Your task to perform on an android device: toggle sleep mode Image 0: 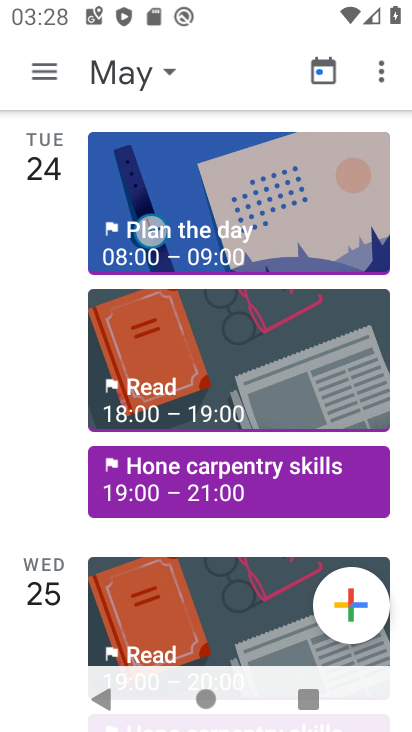
Step 0: drag from (213, 21) to (287, 684)
Your task to perform on an android device: toggle sleep mode Image 1: 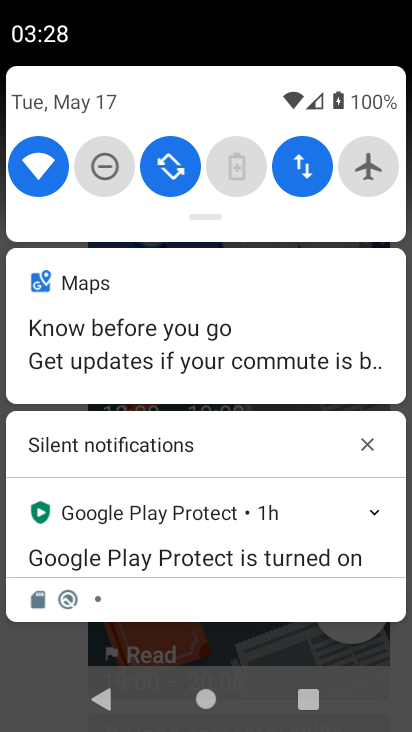
Step 1: drag from (200, 116) to (219, 718)
Your task to perform on an android device: toggle sleep mode Image 2: 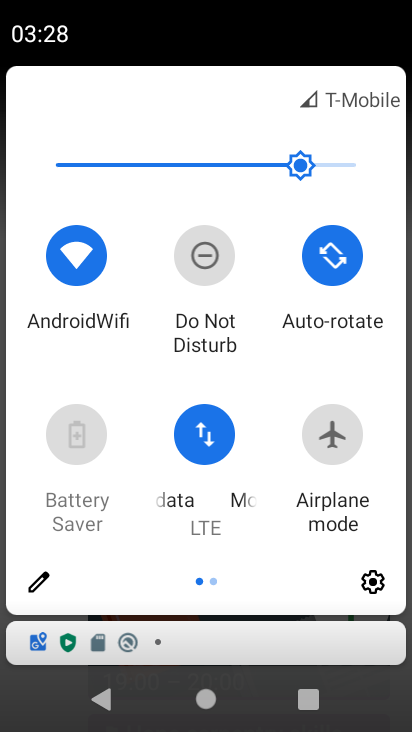
Step 2: click (376, 585)
Your task to perform on an android device: toggle sleep mode Image 3: 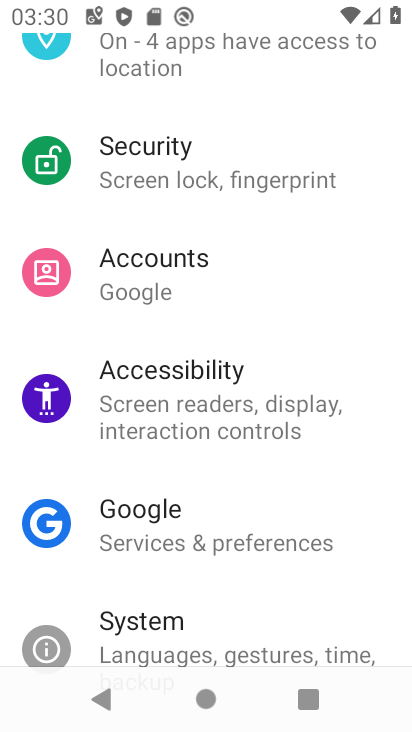
Step 3: task complete